Your task to perform on an android device: set an alarm Image 0: 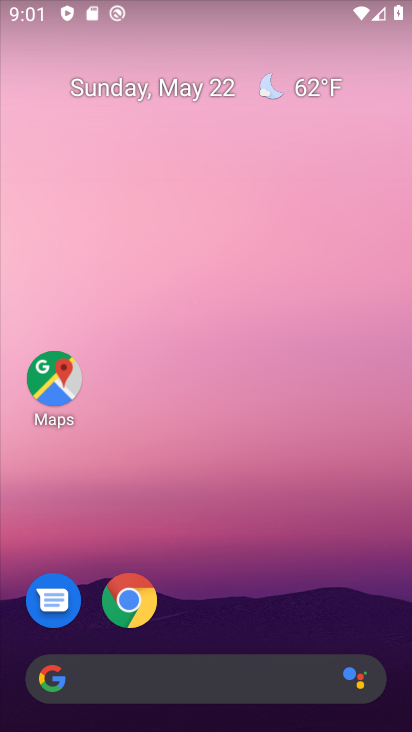
Step 0: drag from (252, 625) to (194, 4)
Your task to perform on an android device: set an alarm Image 1: 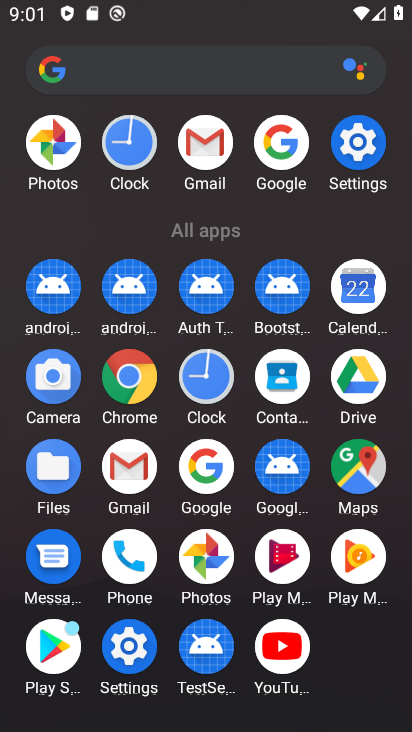
Step 1: click (204, 377)
Your task to perform on an android device: set an alarm Image 2: 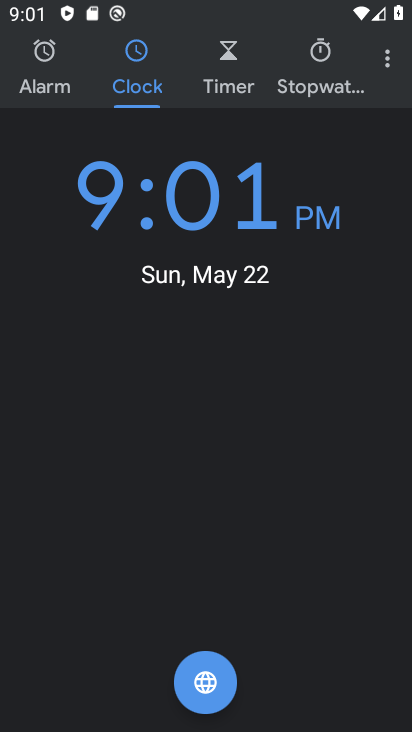
Step 2: click (40, 52)
Your task to perform on an android device: set an alarm Image 3: 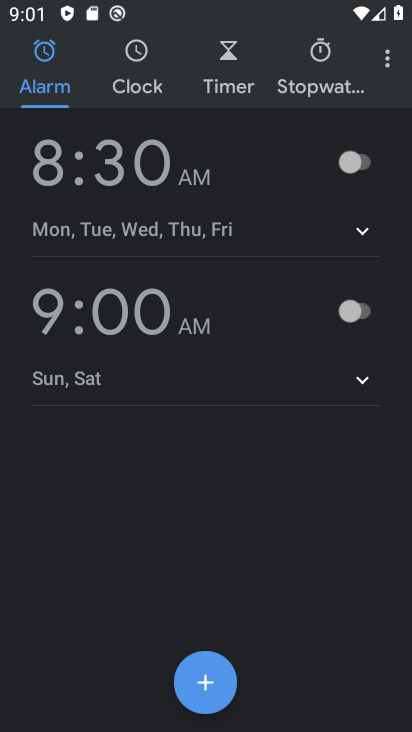
Step 3: click (204, 683)
Your task to perform on an android device: set an alarm Image 4: 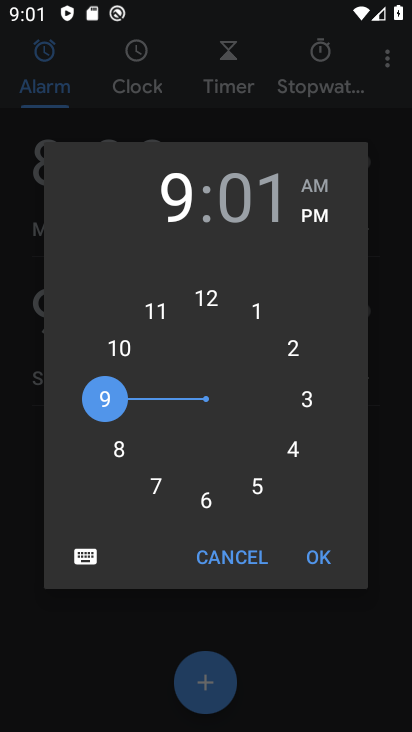
Step 4: click (202, 498)
Your task to perform on an android device: set an alarm Image 5: 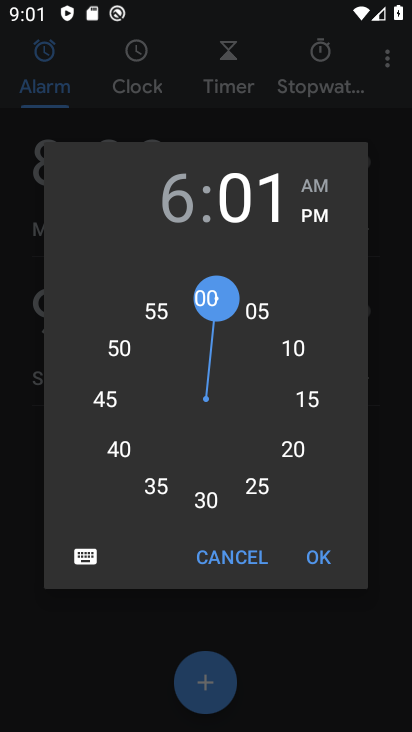
Step 5: click (100, 389)
Your task to perform on an android device: set an alarm Image 6: 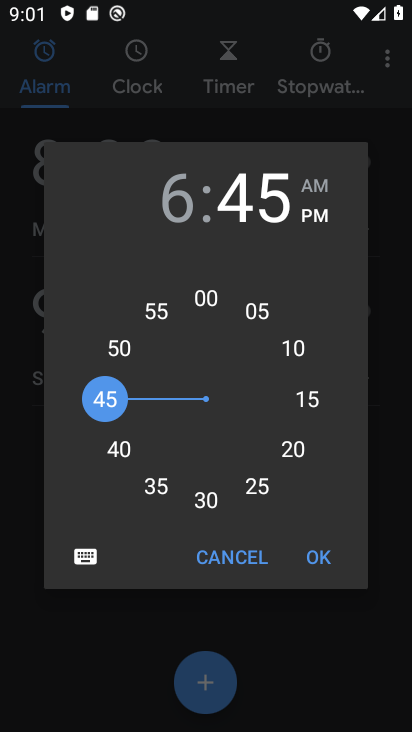
Step 6: click (323, 186)
Your task to perform on an android device: set an alarm Image 7: 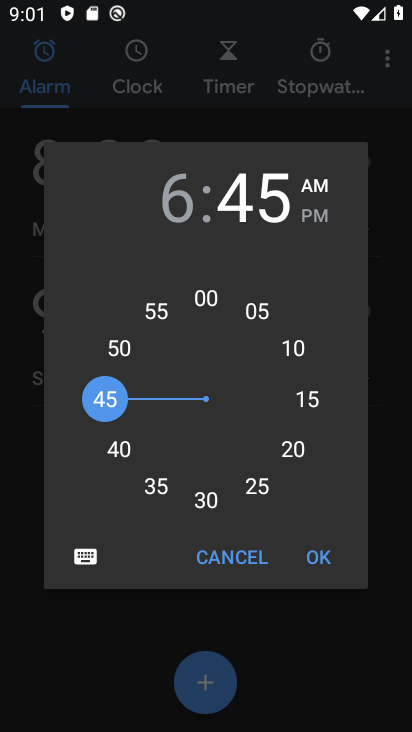
Step 7: click (326, 555)
Your task to perform on an android device: set an alarm Image 8: 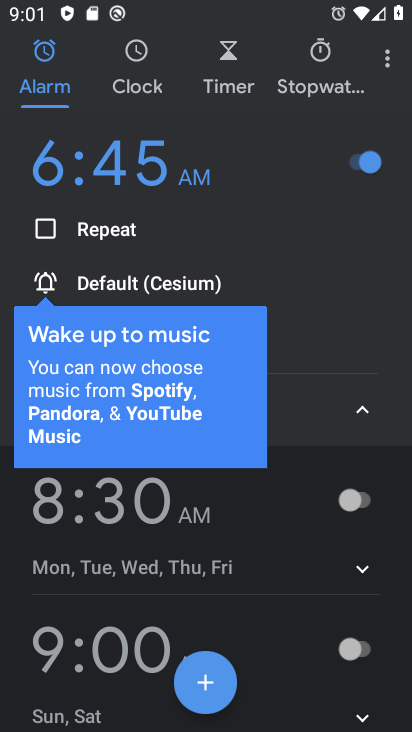
Step 8: click (365, 415)
Your task to perform on an android device: set an alarm Image 9: 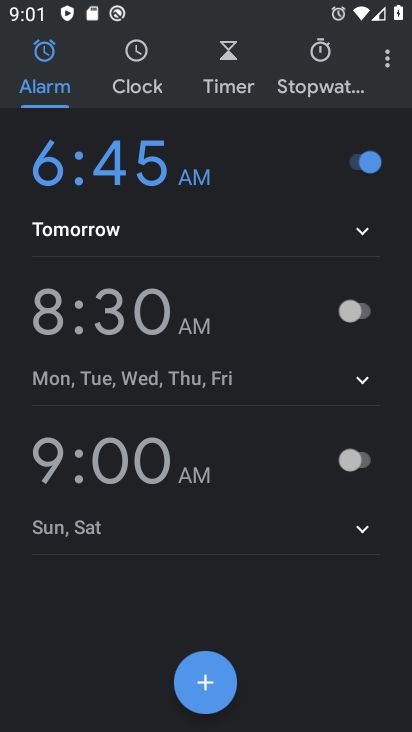
Step 9: task complete